Your task to perform on an android device: What's the weather today? Image 0: 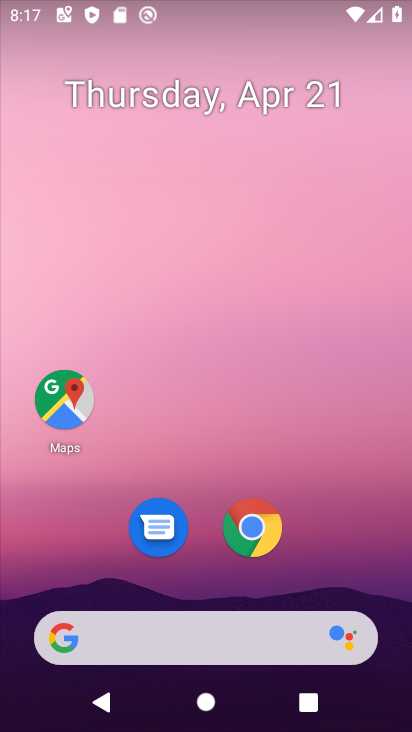
Step 0: drag from (279, 252) to (295, 173)
Your task to perform on an android device: What's the weather today? Image 1: 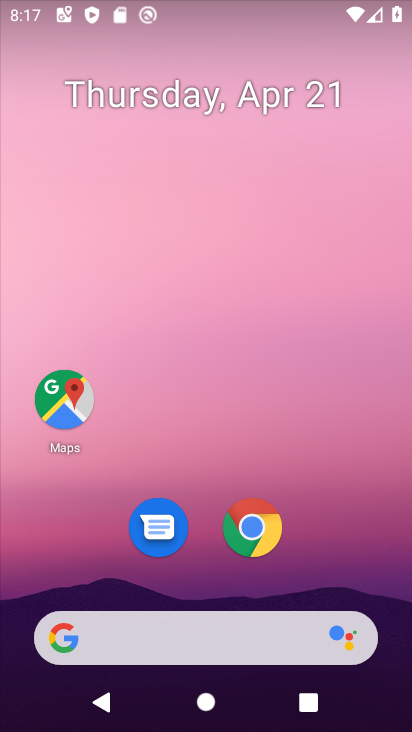
Step 1: drag from (264, 268) to (321, 19)
Your task to perform on an android device: What's the weather today? Image 2: 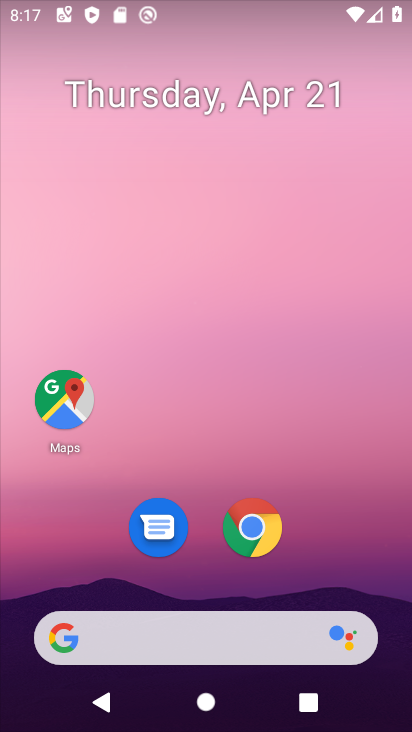
Step 2: drag from (269, 11) to (43, 280)
Your task to perform on an android device: What's the weather today? Image 3: 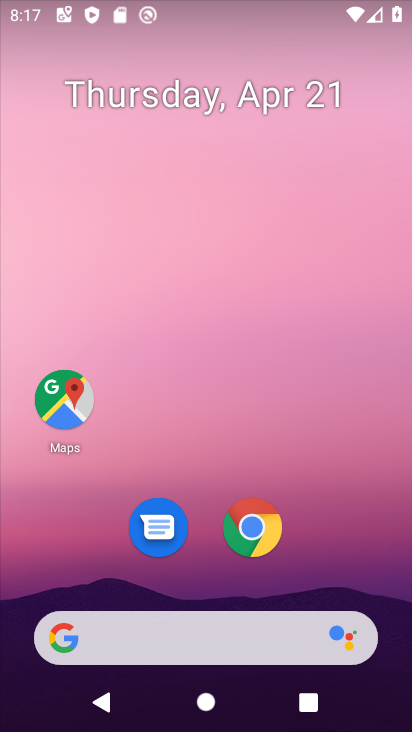
Step 3: drag from (224, 612) to (273, 138)
Your task to perform on an android device: What's the weather today? Image 4: 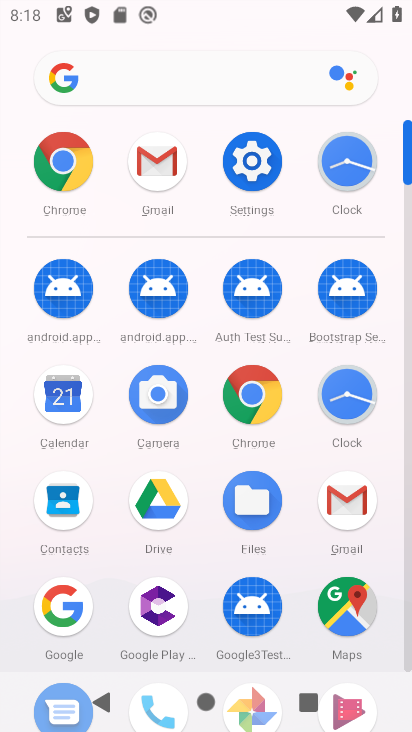
Step 4: click (70, 604)
Your task to perform on an android device: What's the weather today? Image 5: 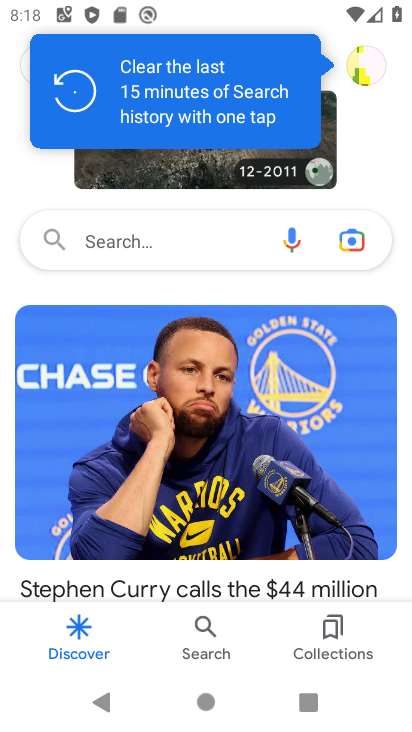
Step 5: click (223, 242)
Your task to perform on an android device: What's the weather today? Image 6: 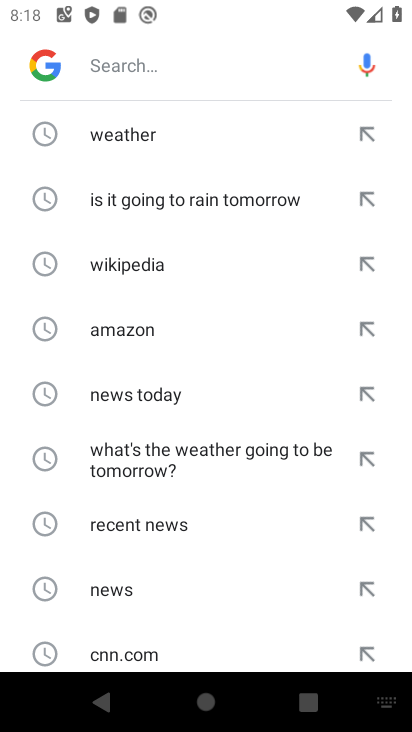
Step 6: click (239, 128)
Your task to perform on an android device: What's the weather today? Image 7: 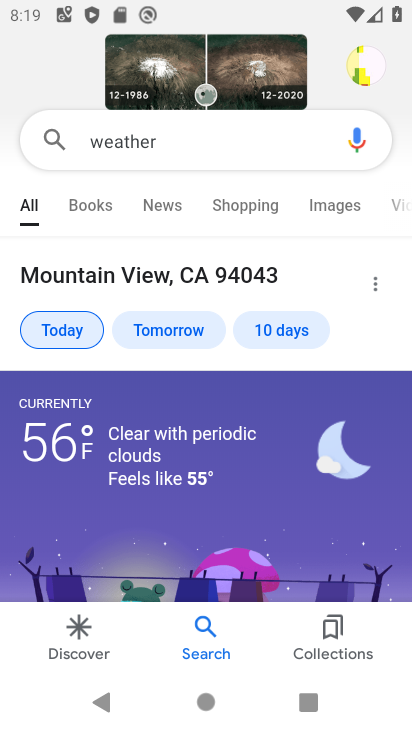
Step 7: task complete